Your task to perform on an android device: turn off improve location accuracy Image 0: 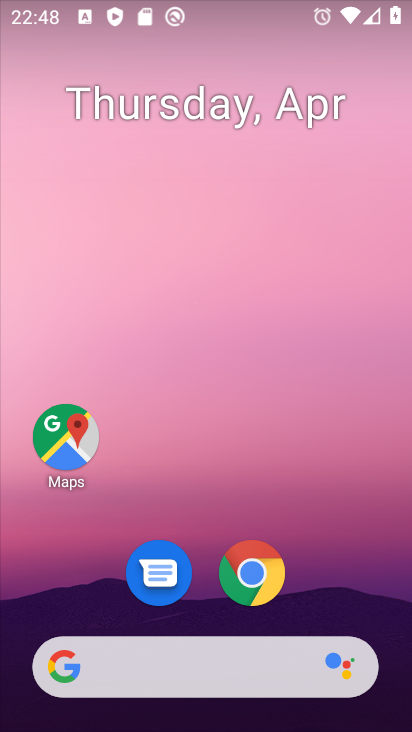
Step 0: drag from (268, 2) to (158, 483)
Your task to perform on an android device: turn off improve location accuracy Image 1: 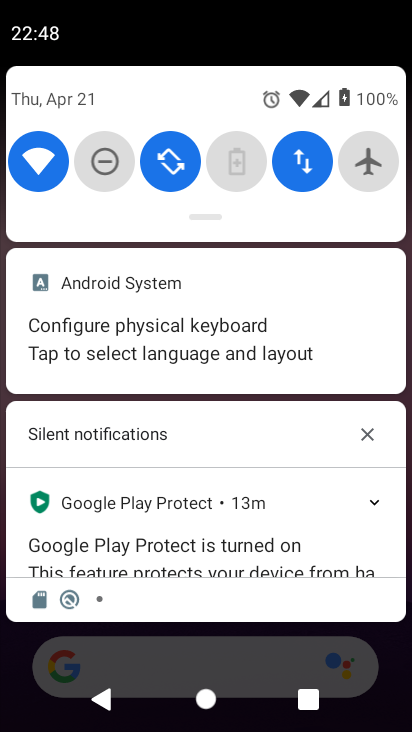
Step 1: press home button
Your task to perform on an android device: turn off improve location accuracy Image 2: 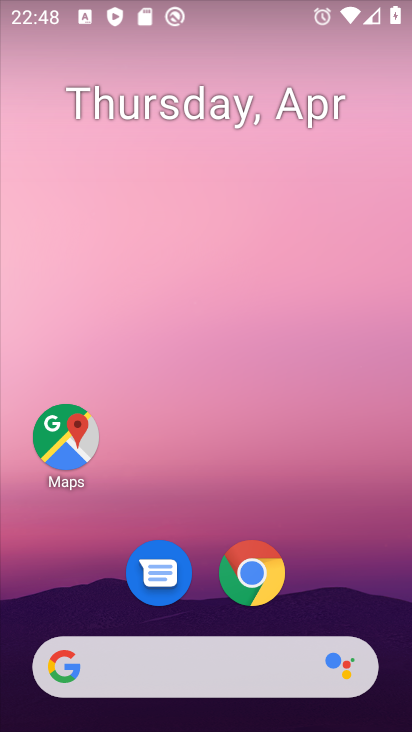
Step 2: drag from (197, 590) to (206, 115)
Your task to perform on an android device: turn off improve location accuracy Image 3: 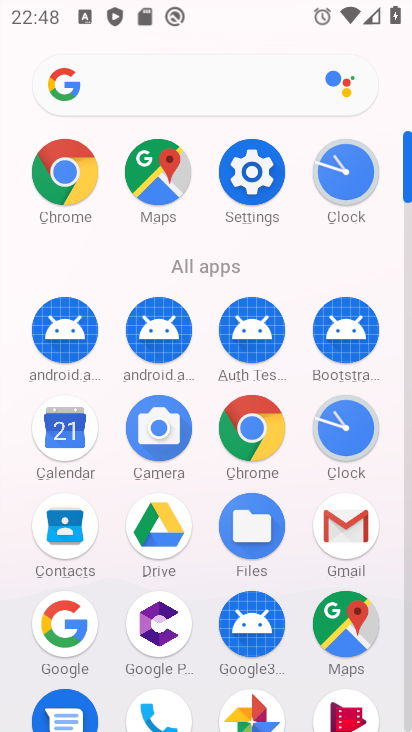
Step 3: click (240, 177)
Your task to perform on an android device: turn off improve location accuracy Image 4: 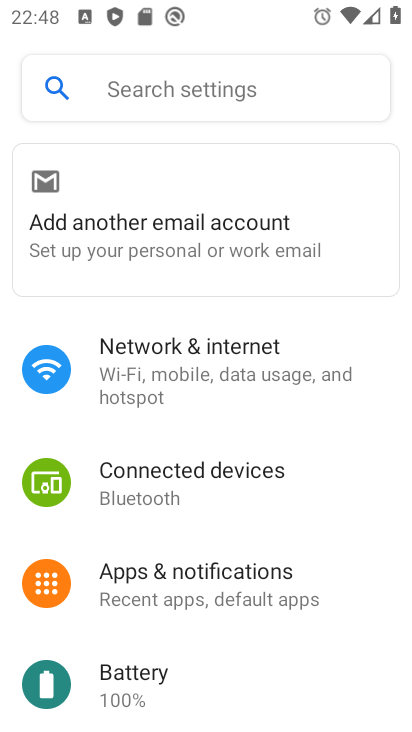
Step 4: drag from (290, 561) to (266, 171)
Your task to perform on an android device: turn off improve location accuracy Image 5: 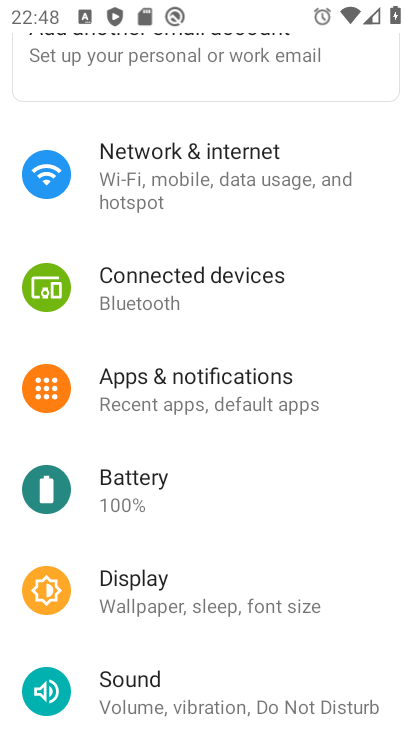
Step 5: drag from (307, 634) to (296, 188)
Your task to perform on an android device: turn off improve location accuracy Image 6: 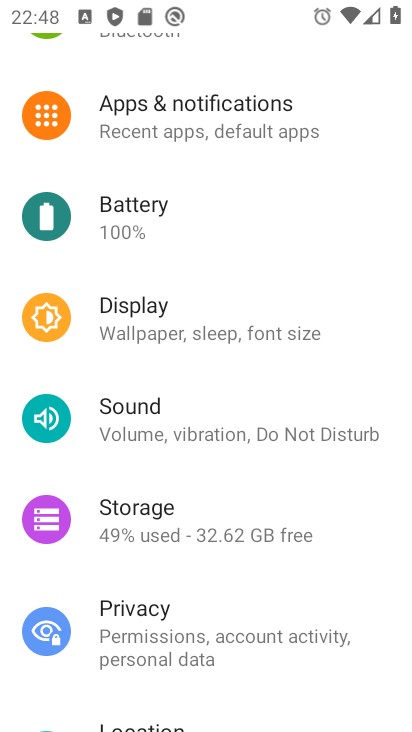
Step 6: drag from (299, 469) to (344, 200)
Your task to perform on an android device: turn off improve location accuracy Image 7: 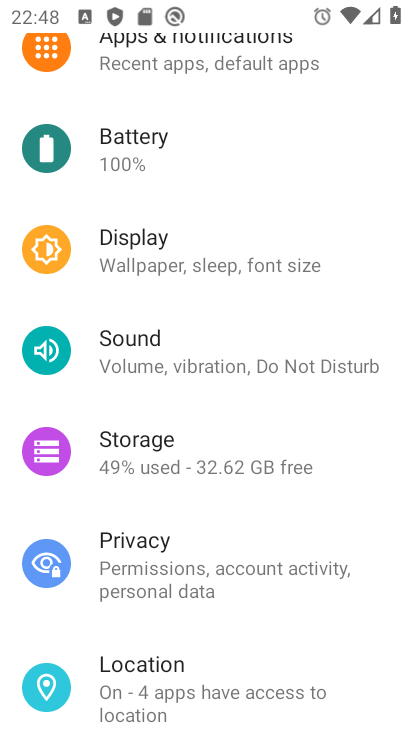
Step 7: click (190, 674)
Your task to perform on an android device: turn off improve location accuracy Image 8: 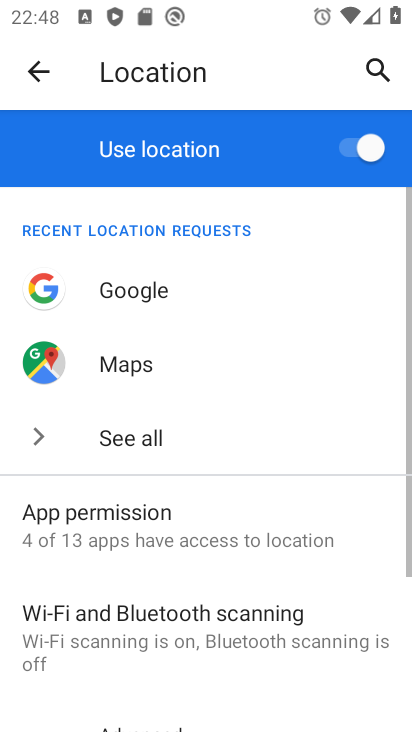
Step 8: drag from (185, 666) to (257, 224)
Your task to perform on an android device: turn off improve location accuracy Image 9: 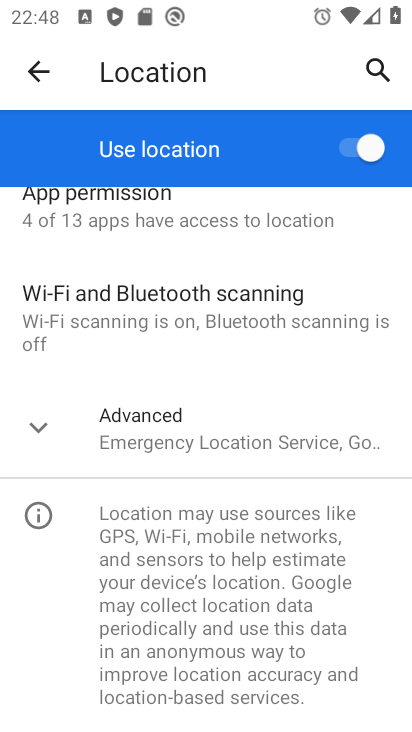
Step 9: click (165, 439)
Your task to perform on an android device: turn off improve location accuracy Image 10: 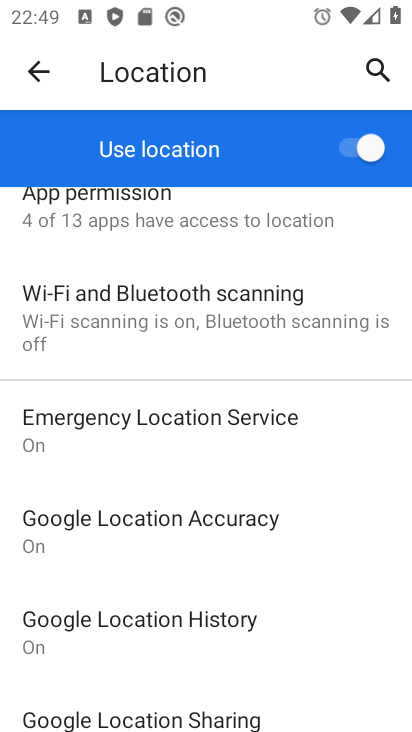
Step 10: click (206, 519)
Your task to perform on an android device: turn off improve location accuracy Image 11: 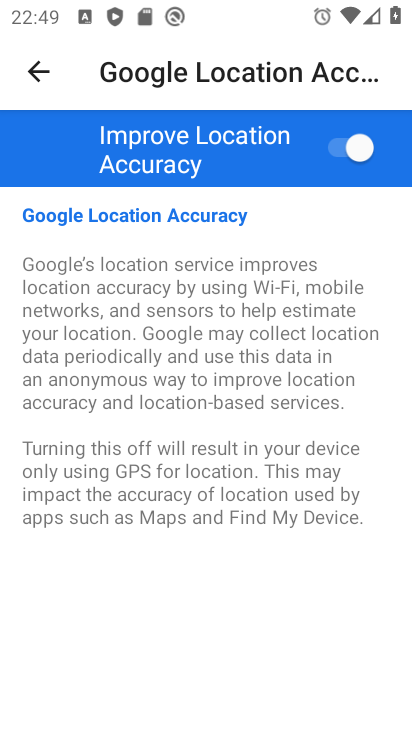
Step 11: click (360, 161)
Your task to perform on an android device: turn off improve location accuracy Image 12: 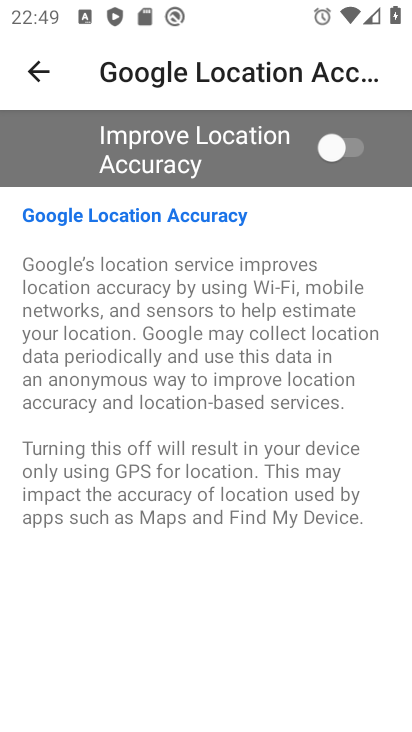
Step 12: task complete